Your task to perform on an android device: Go to display settings Image 0: 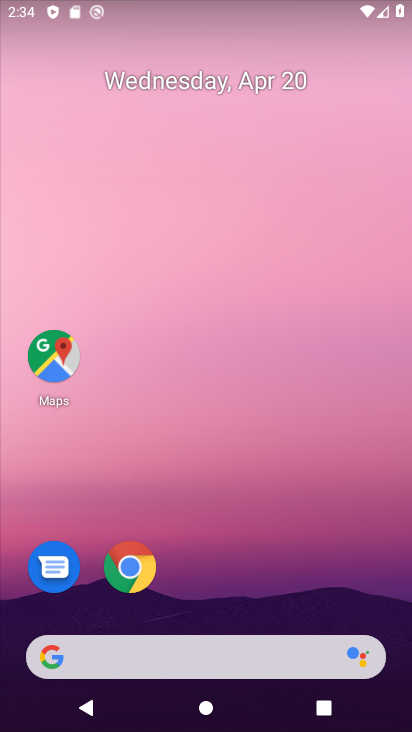
Step 0: drag from (185, 601) to (330, 14)
Your task to perform on an android device: Go to display settings Image 1: 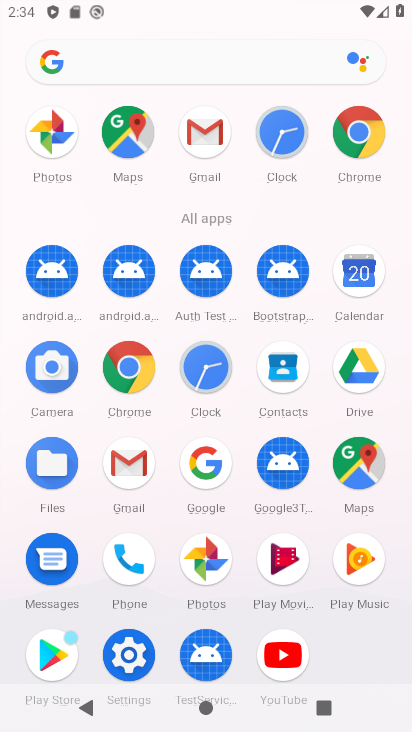
Step 1: click (120, 641)
Your task to perform on an android device: Go to display settings Image 2: 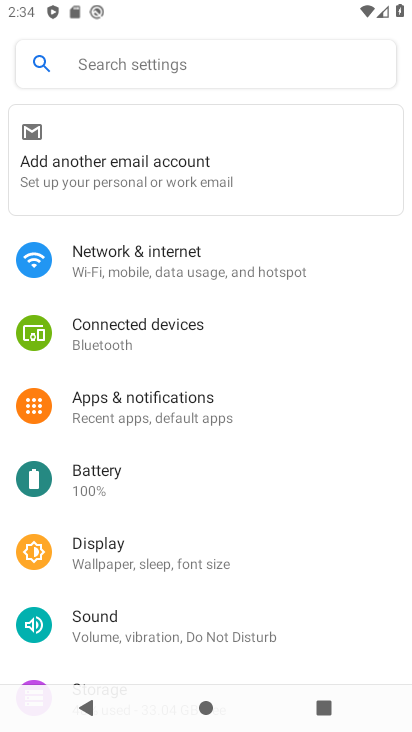
Step 2: click (108, 568)
Your task to perform on an android device: Go to display settings Image 3: 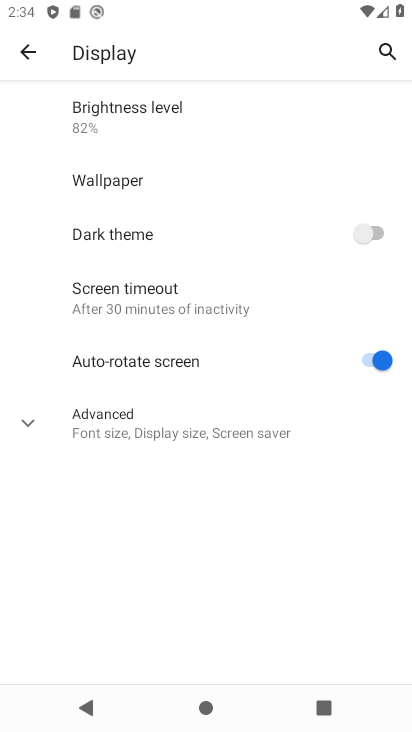
Step 3: task complete